Your task to perform on an android device: Go to wifi settings Image 0: 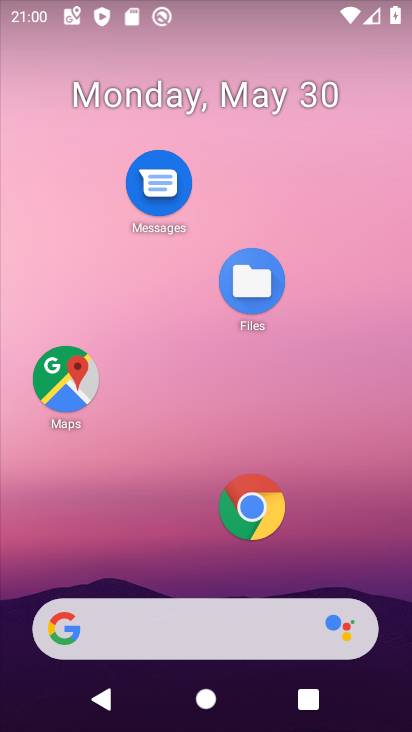
Step 0: drag from (153, 573) to (191, 222)
Your task to perform on an android device: Go to wifi settings Image 1: 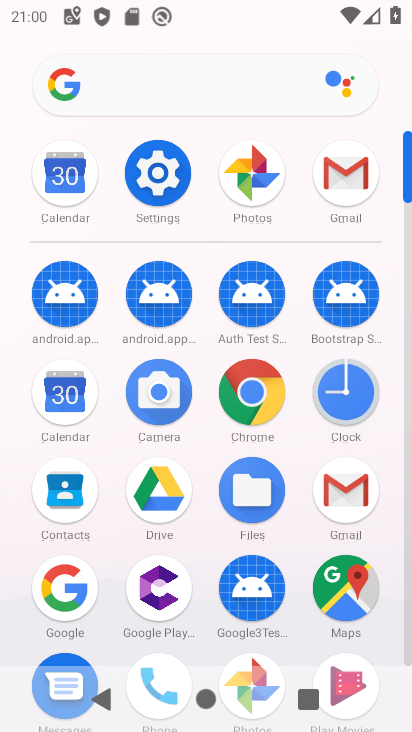
Step 1: click (165, 186)
Your task to perform on an android device: Go to wifi settings Image 2: 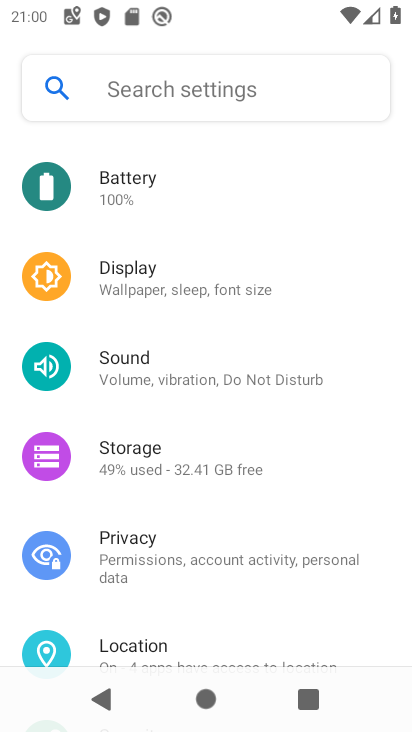
Step 2: drag from (166, 195) to (183, 506)
Your task to perform on an android device: Go to wifi settings Image 3: 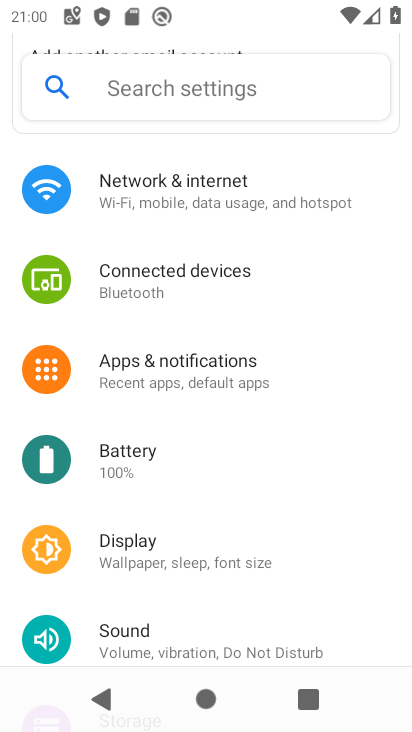
Step 3: drag from (183, 263) to (199, 397)
Your task to perform on an android device: Go to wifi settings Image 4: 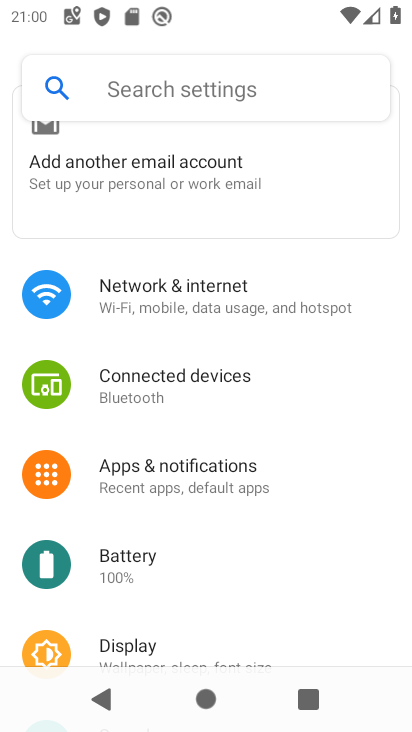
Step 4: click (197, 297)
Your task to perform on an android device: Go to wifi settings Image 5: 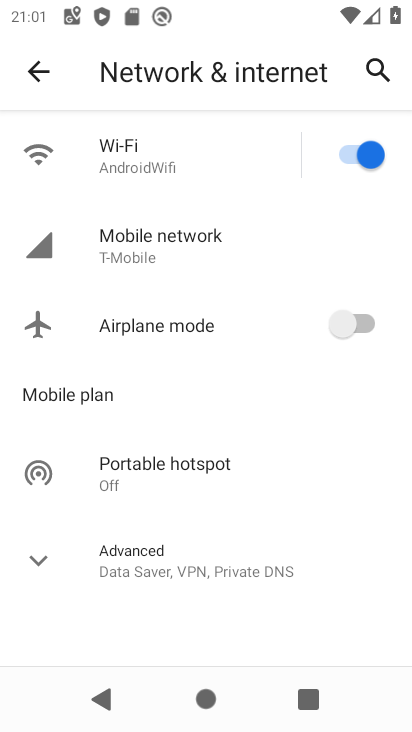
Step 5: click (174, 163)
Your task to perform on an android device: Go to wifi settings Image 6: 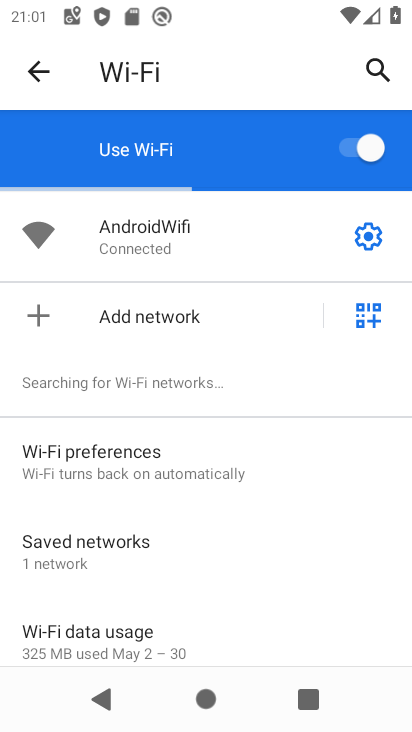
Step 6: task complete